Your task to perform on an android device: toggle wifi Image 0: 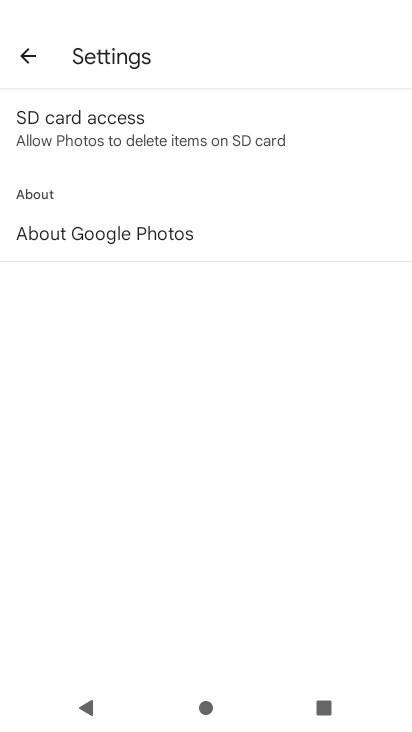
Step 0: press home button
Your task to perform on an android device: toggle wifi Image 1: 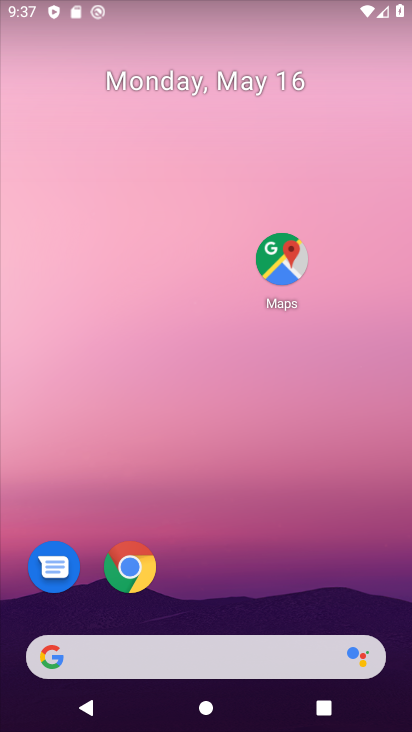
Step 1: drag from (239, 464) to (203, 102)
Your task to perform on an android device: toggle wifi Image 2: 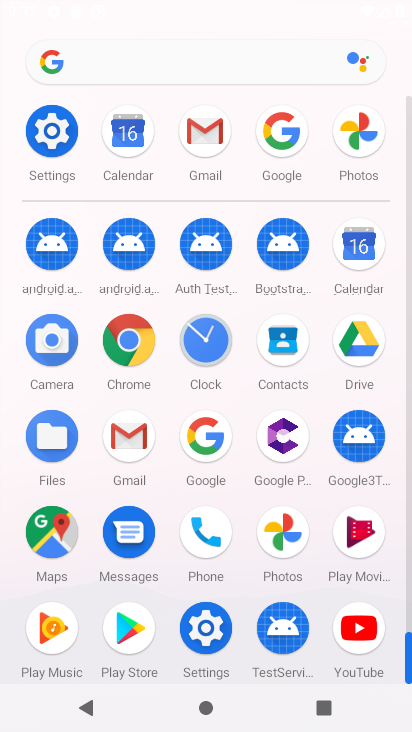
Step 2: click (54, 135)
Your task to perform on an android device: toggle wifi Image 3: 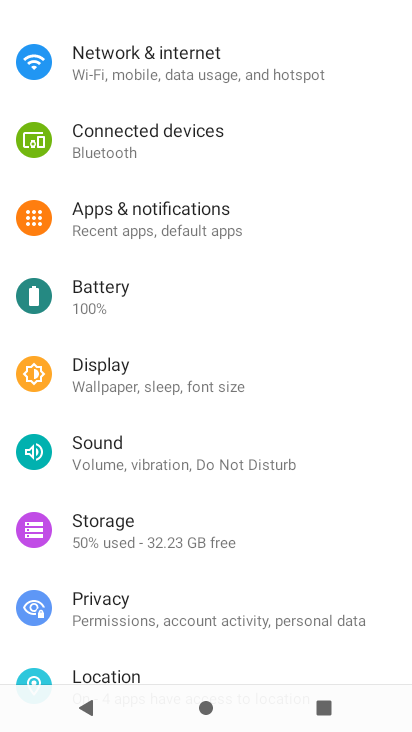
Step 3: click (126, 66)
Your task to perform on an android device: toggle wifi Image 4: 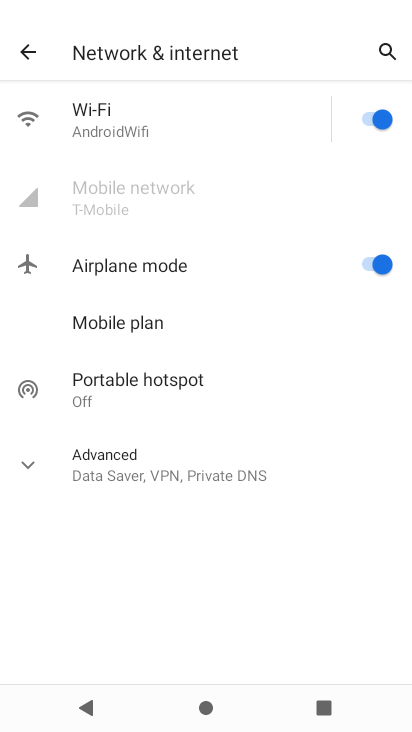
Step 4: click (381, 116)
Your task to perform on an android device: toggle wifi Image 5: 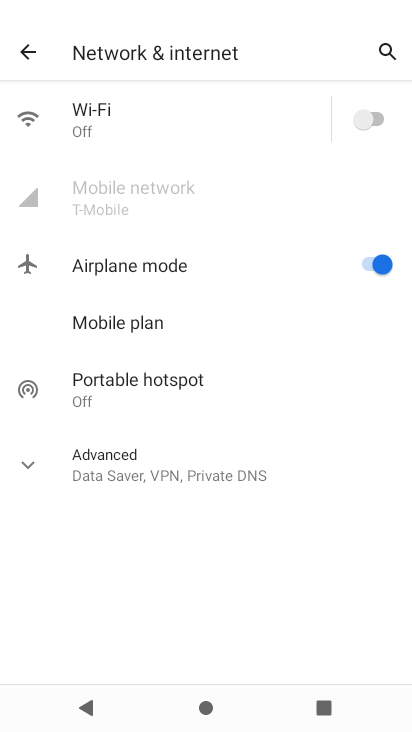
Step 5: task complete